Your task to perform on an android device: move a message to another label in the gmail app Image 0: 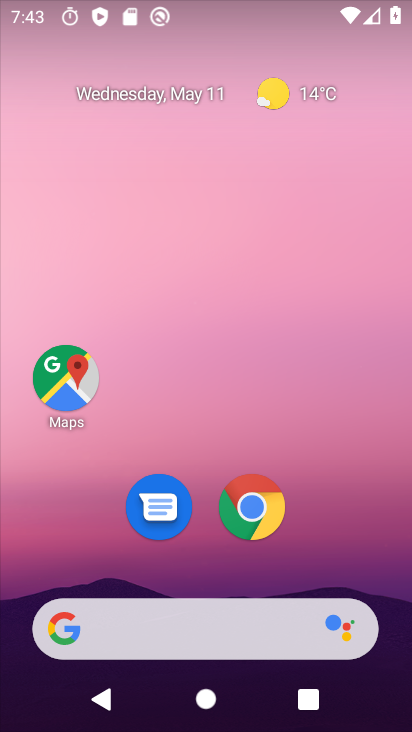
Step 0: drag from (372, 523) to (409, 590)
Your task to perform on an android device: move a message to another label in the gmail app Image 1: 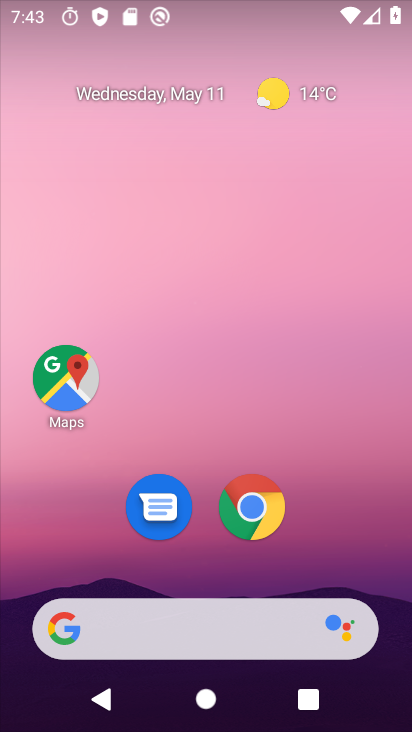
Step 1: drag from (347, 541) to (282, 0)
Your task to perform on an android device: move a message to another label in the gmail app Image 2: 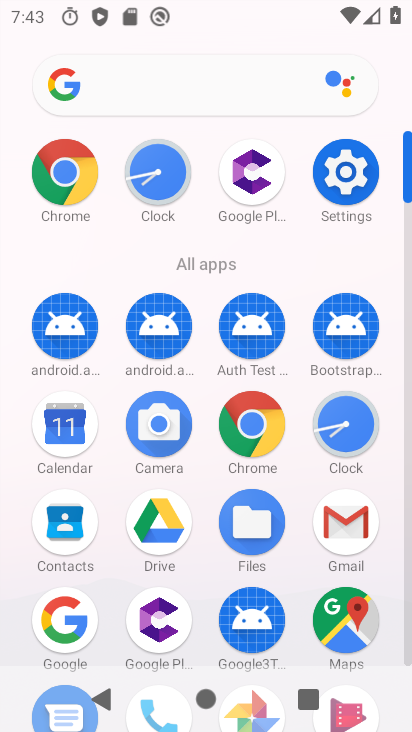
Step 2: click (360, 546)
Your task to perform on an android device: move a message to another label in the gmail app Image 3: 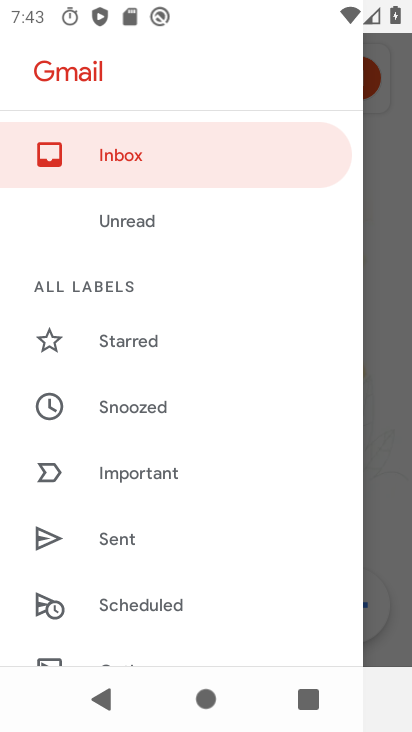
Step 3: task complete